Your task to perform on an android device: change alarm snooze length Image 0: 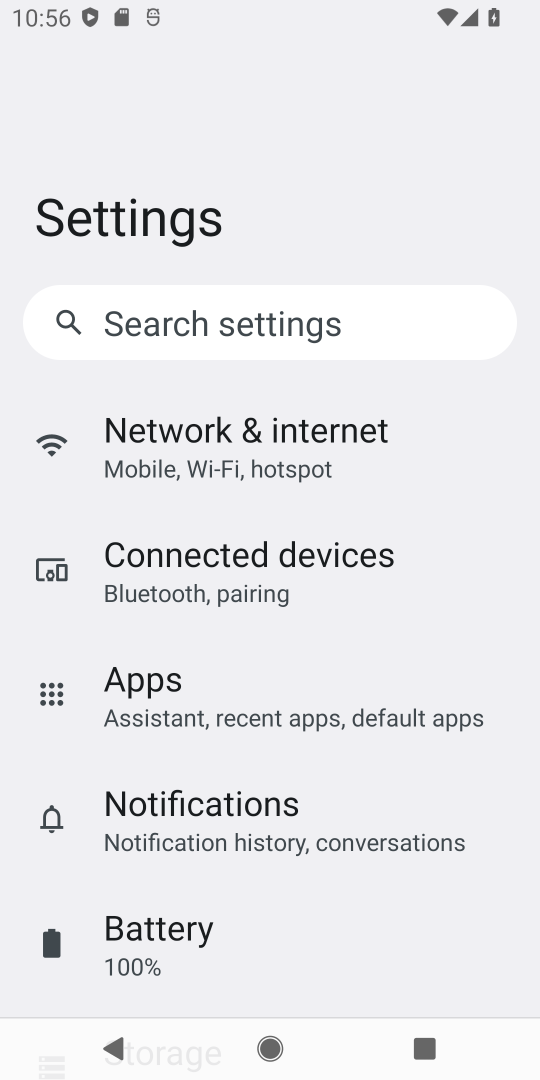
Step 0: press home button
Your task to perform on an android device: change alarm snooze length Image 1: 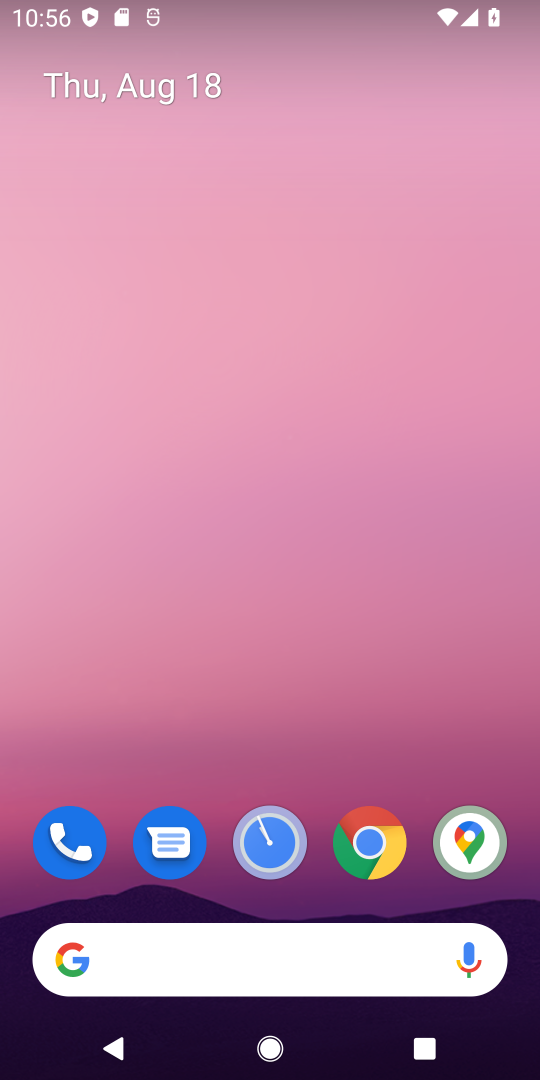
Step 1: click (270, 859)
Your task to perform on an android device: change alarm snooze length Image 2: 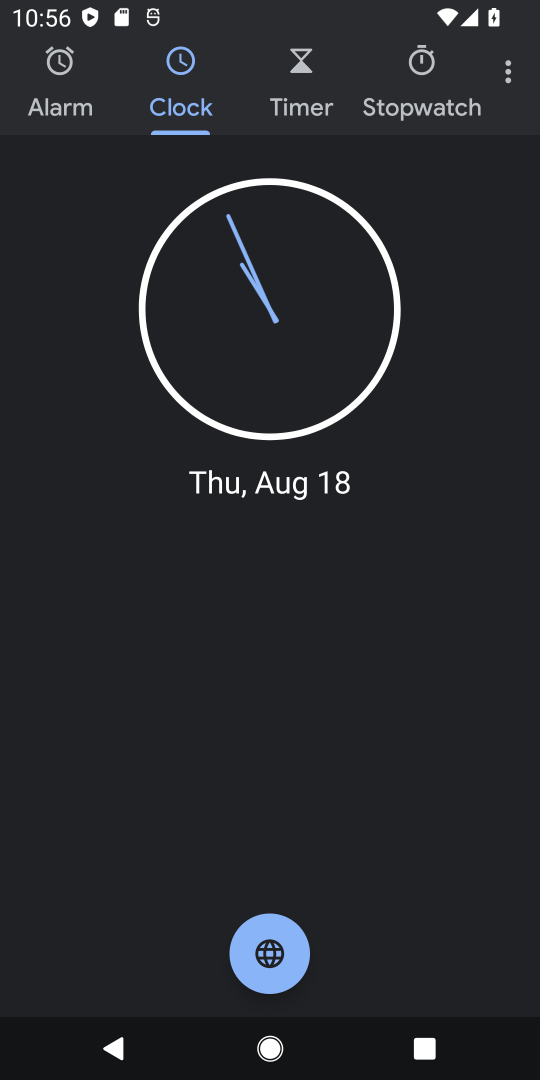
Step 2: click (510, 67)
Your task to perform on an android device: change alarm snooze length Image 3: 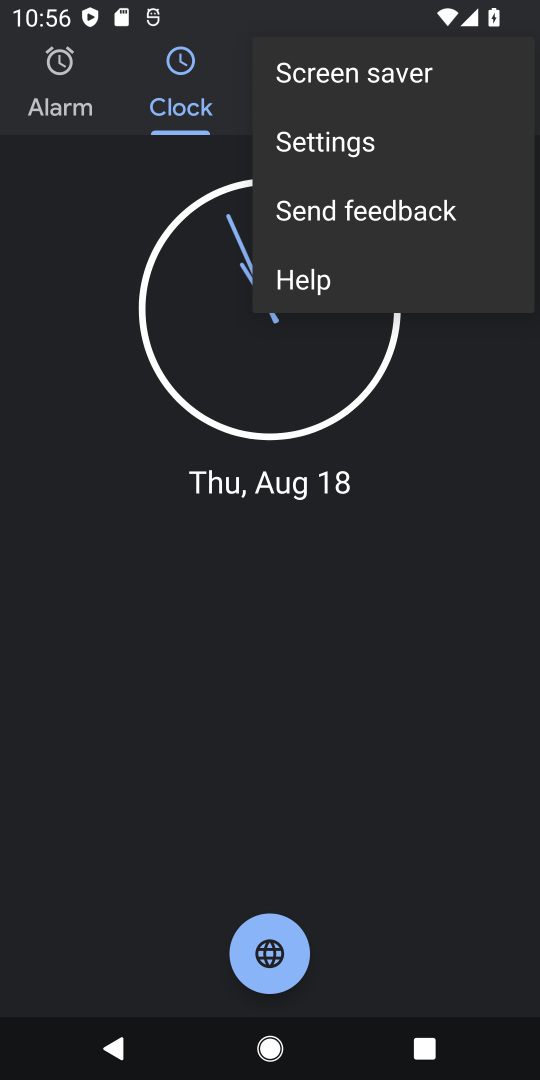
Step 3: click (382, 137)
Your task to perform on an android device: change alarm snooze length Image 4: 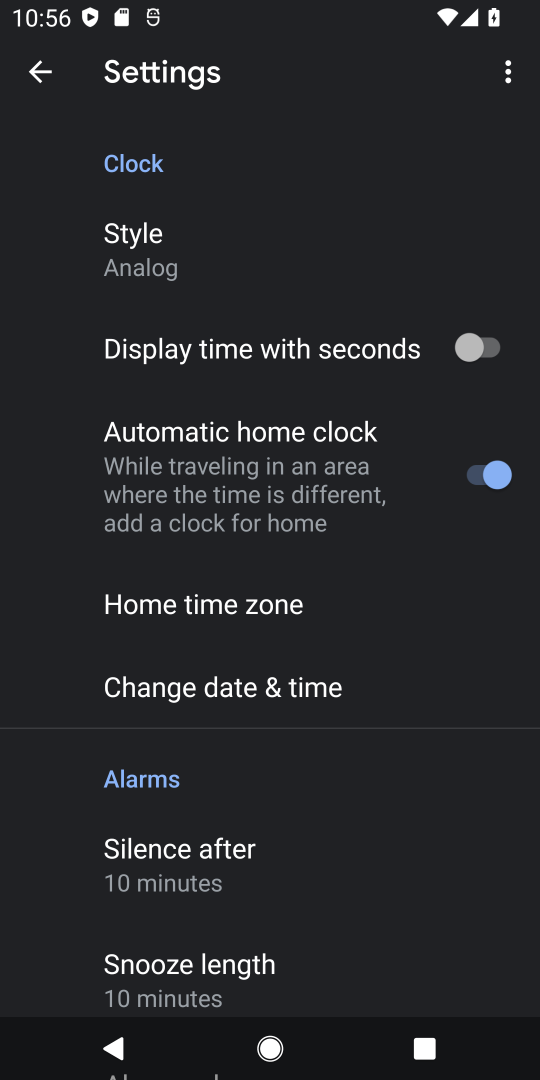
Step 4: click (92, 988)
Your task to perform on an android device: change alarm snooze length Image 5: 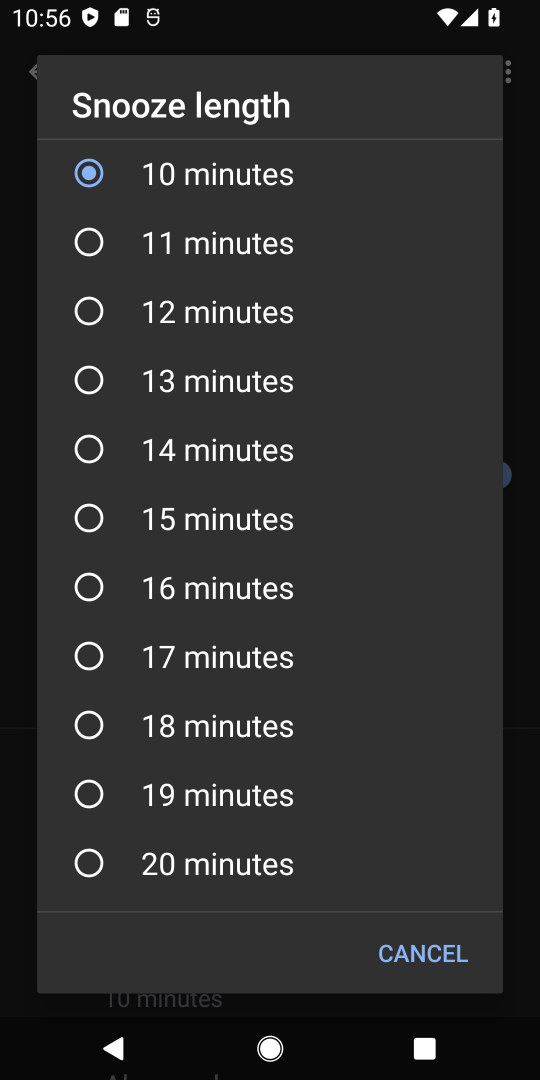
Step 5: click (114, 876)
Your task to perform on an android device: change alarm snooze length Image 6: 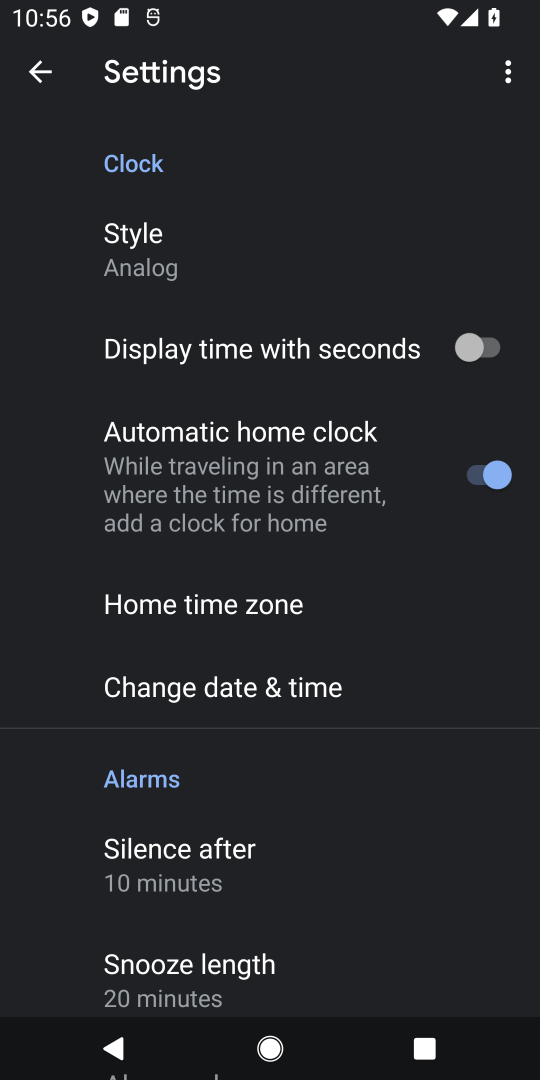
Step 6: task complete